Your task to perform on an android device: Show me productivity apps on the Play Store Image 0: 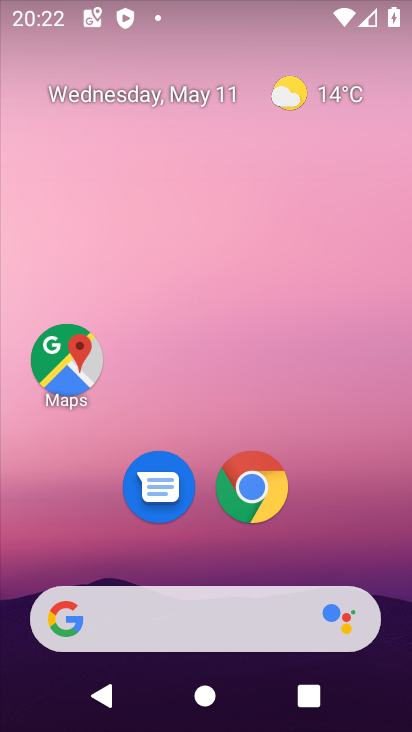
Step 0: drag from (210, 596) to (261, 237)
Your task to perform on an android device: Show me productivity apps on the Play Store Image 1: 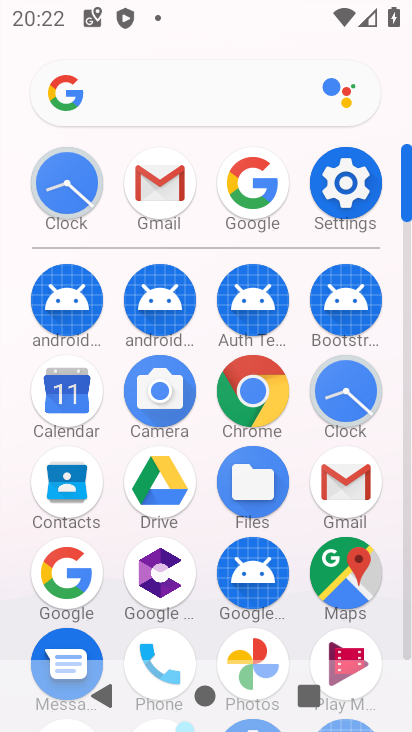
Step 1: drag from (200, 606) to (220, 283)
Your task to perform on an android device: Show me productivity apps on the Play Store Image 2: 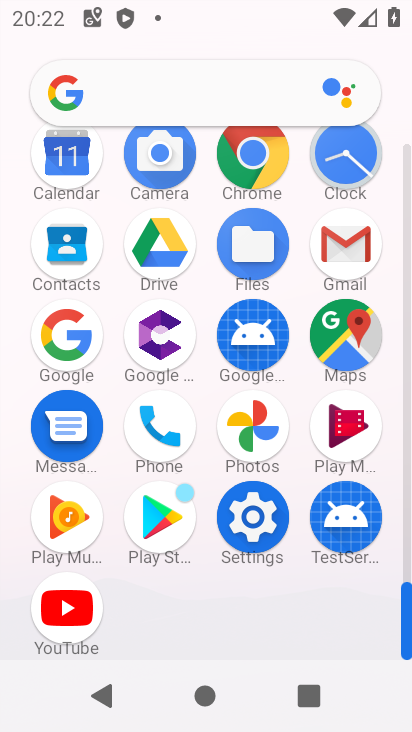
Step 2: click (154, 524)
Your task to perform on an android device: Show me productivity apps on the Play Store Image 3: 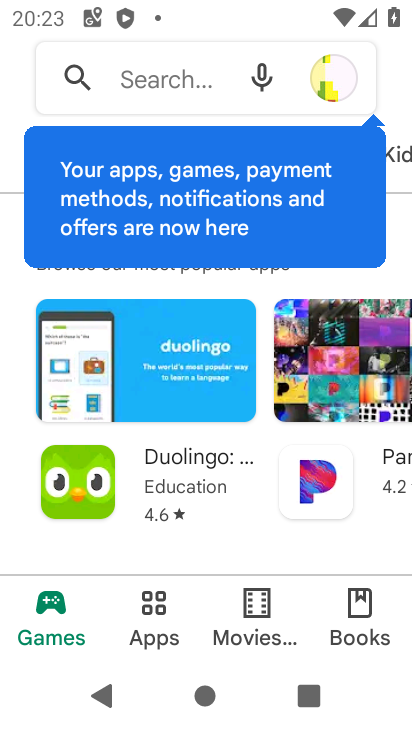
Step 3: click (146, 607)
Your task to perform on an android device: Show me productivity apps on the Play Store Image 4: 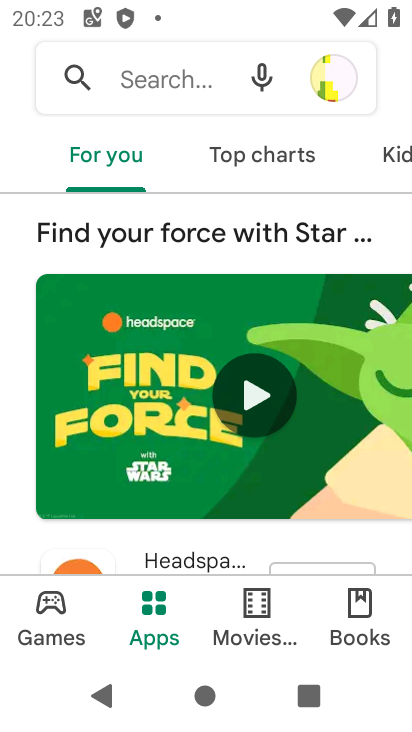
Step 4: task complete